Your task to perform on an android device: Go to notification settings Image 0: 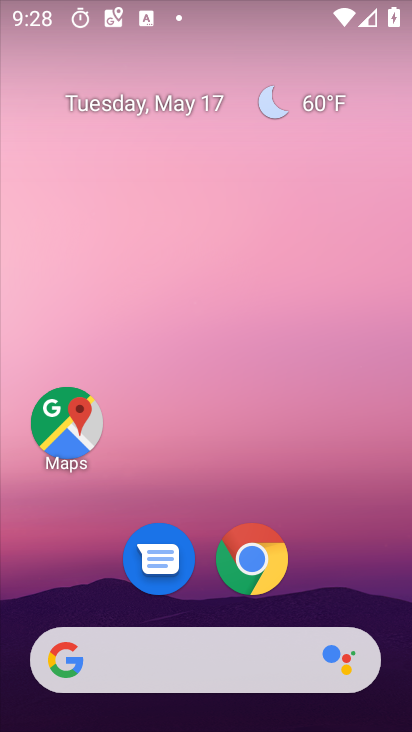
Step 0: drag from (210, 680) to (278, 3)
Your task to perform on an android device: Go to notification settings Image 1: 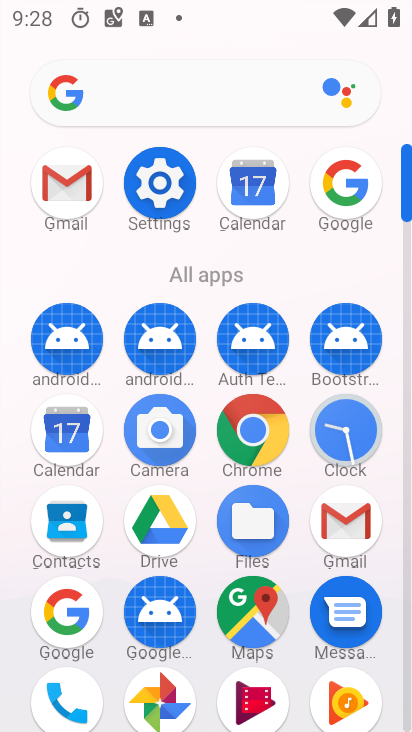
Step 1: click (158, 205)
Your task to perform on an android device: Go to notification settings Image 2: 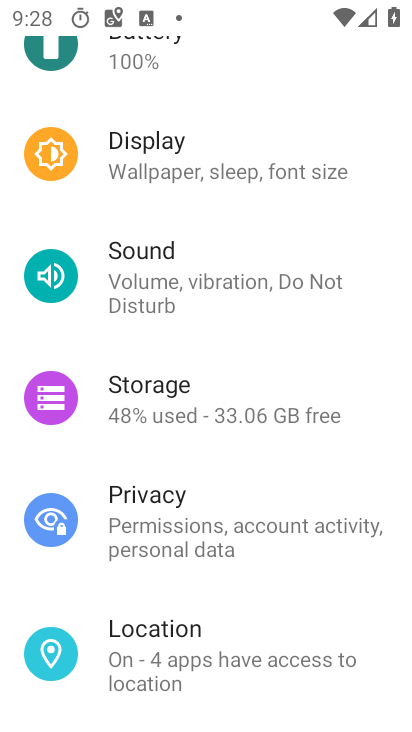
Step 2: drag from (233, 409) to (204, 679)
Your task to perform on an android device: Go to notification settings Image 3: 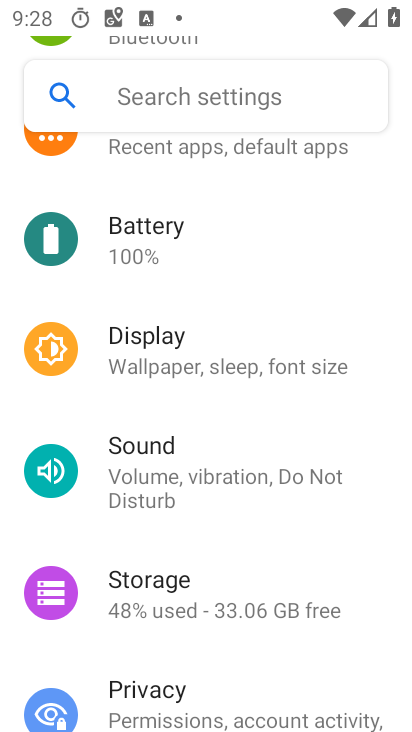
Step 3: drag from (199, 393) to (164, 699)
Your task to perform on an android device: Go to notification settings Image 4: 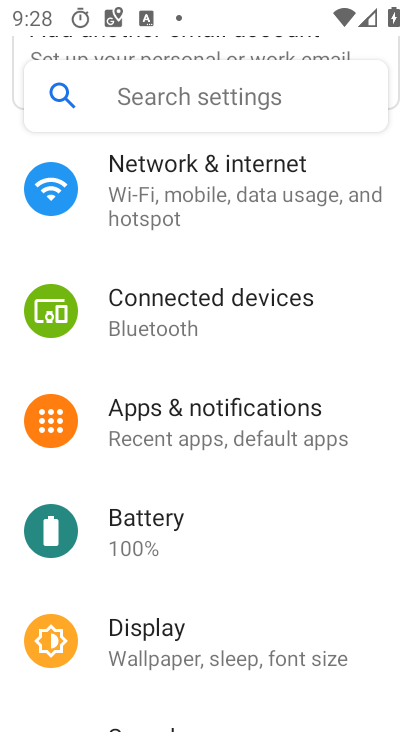
Step 4: click (151, 440)
Your task to perform on an android device: Go to notification settings Image 5: 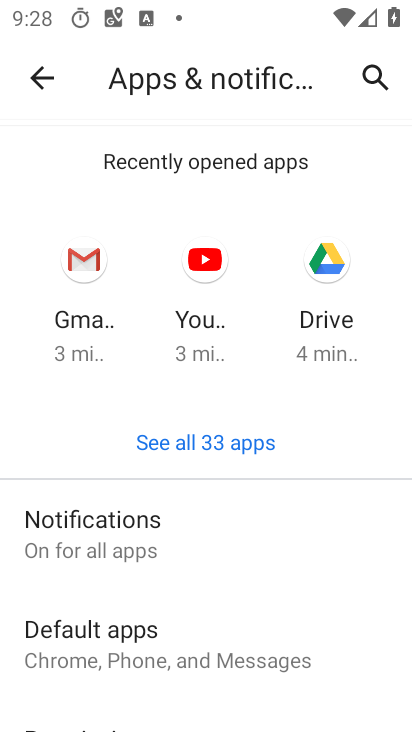
Step 5: click (146, 553)
Your task to perform on an android device: Go to notification settings Image 6: 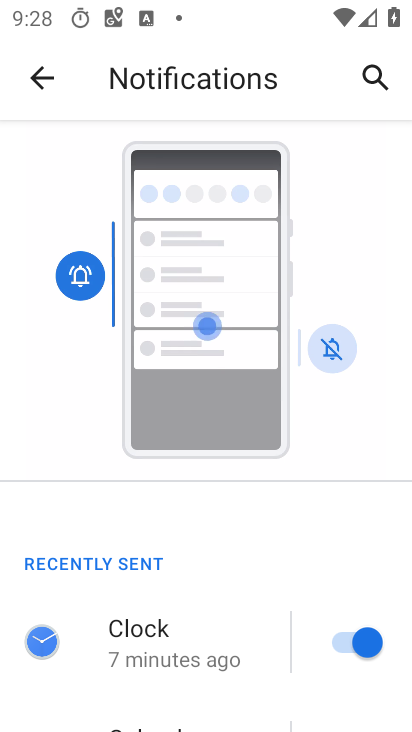
Step 6: task complete